Your task to perform on an android device: toggle sleep mode Image 0: 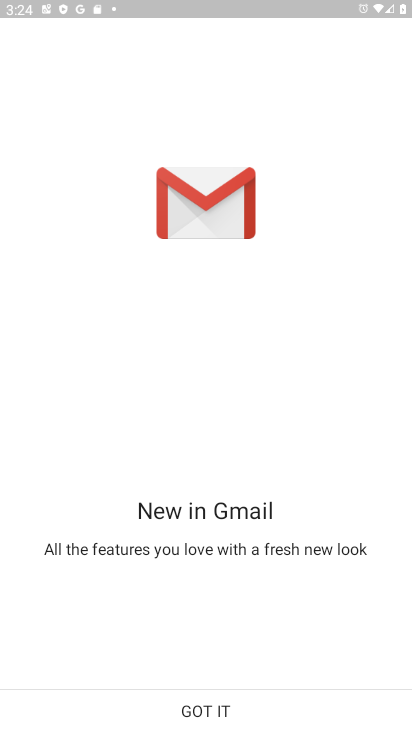
Step 0: press home button
Your task to perform on an android device: toggle sleep mode Image 1: 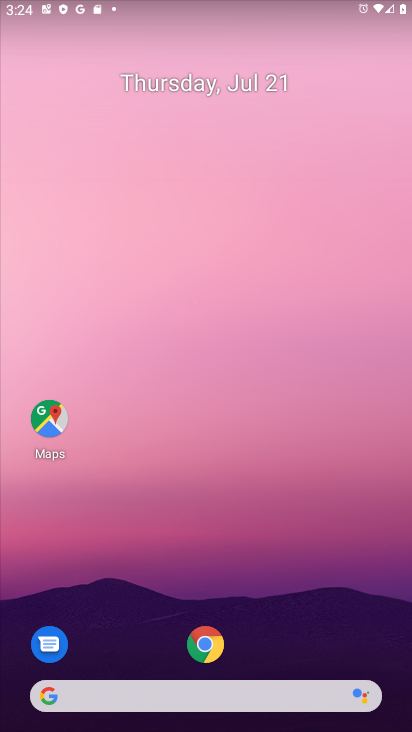
Step 1: drag from (288, 617) to (263, 86)
Your task to perform on an android device: toggle sleep mode Image 2: 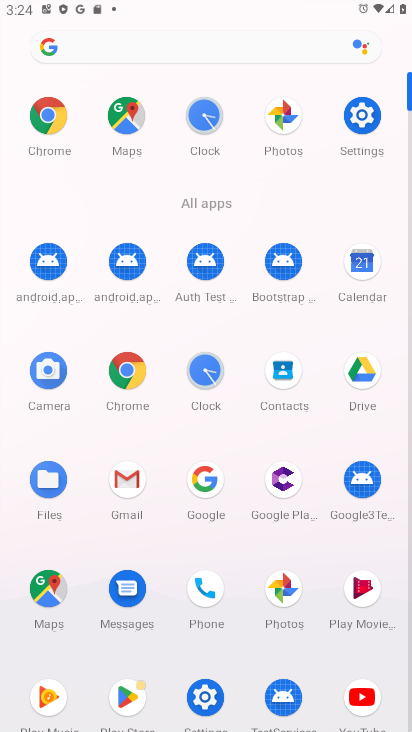
Step 2: click (355, 113)
Your task to perform on an android device: toggle sleep mode Image 3: 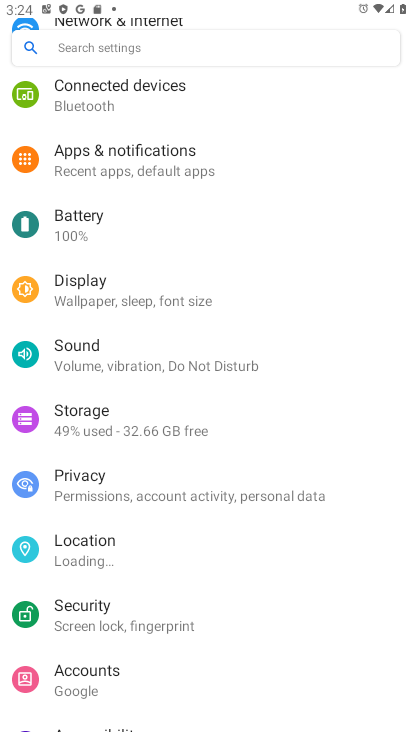
Step 3: click (117, 284)
Your task to perform on an android device: toggle sleep mode Image 4: 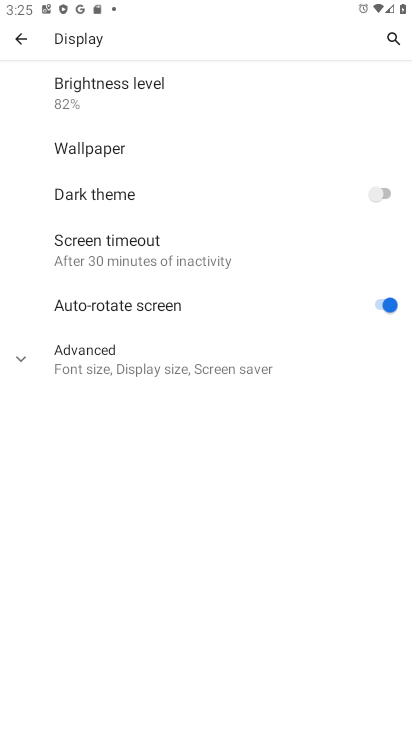
Step 4: task complete